Your task to perform on an android device: Go to Amazon Image 0: 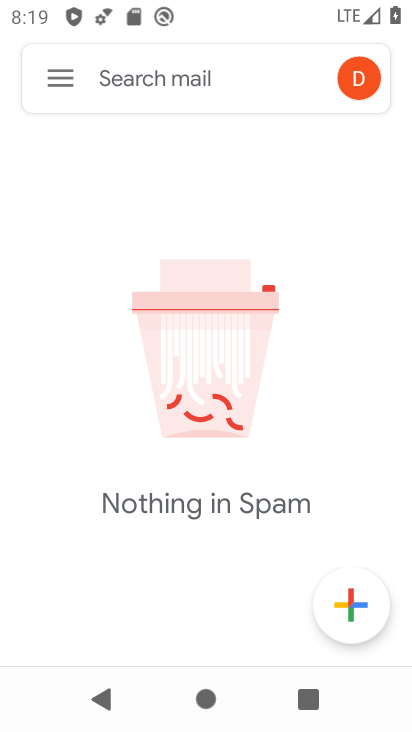
Step 0: press back button
Your task to perform on an android device: Go to Amazon Image 1: 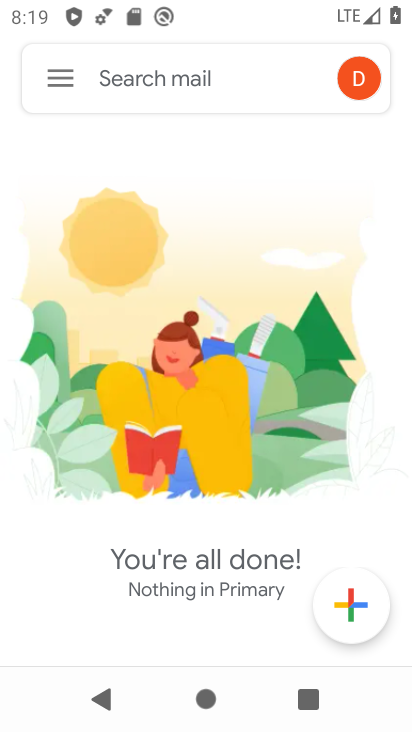
Step 1: press back button
Your task to perform on an android device: Go to Amazon Image 2: 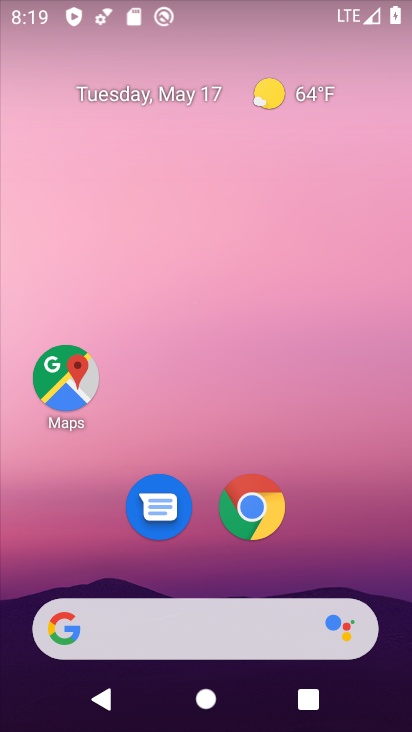
Step 2: click (252, 507)
Your task to perform on an android device: Go to Amazon Image 3: 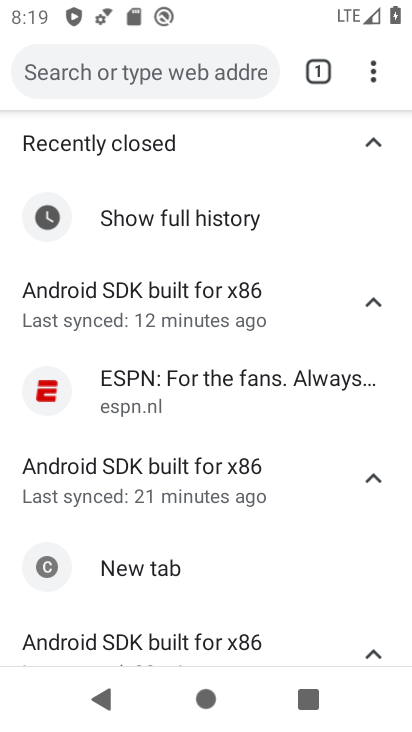
Step 3: click (119, 71)
Your task to perform on an android device: Go to Amazon Image 4: 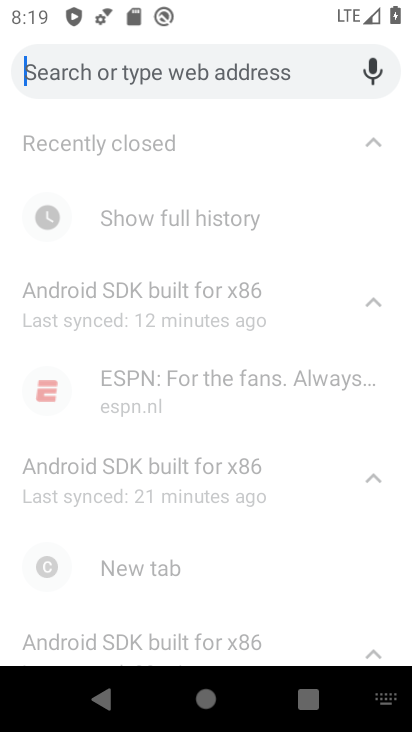
Step 4: type "Amazon"
Your task to perform on an android device: Go to Amazon Image 5: 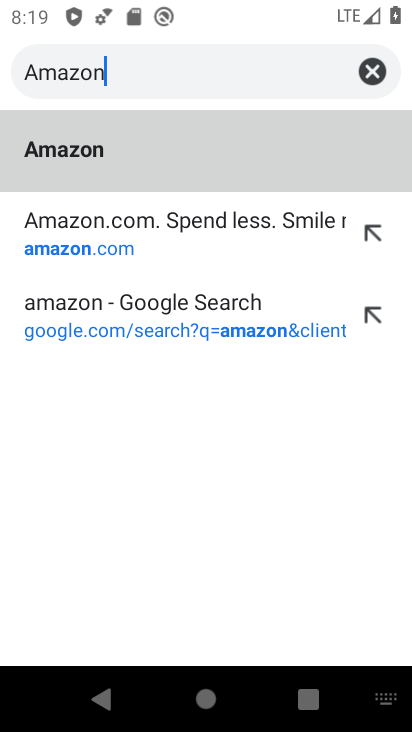
Step 5: click (78, 151)
Your task to perform on an android device: Go to Amazon Image 6: 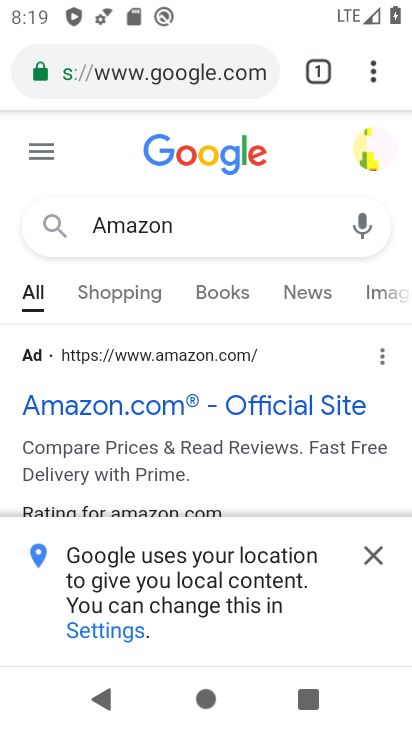
Step 6: click (188, 418)
Your task to perform on an android device: Go to Amazon Image 7: 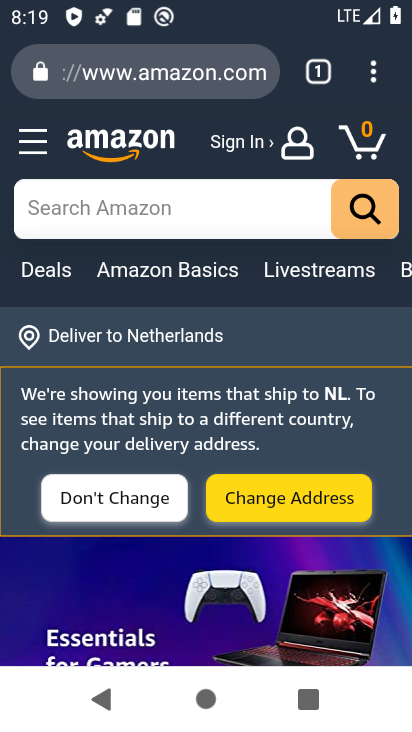
Step 7: task complete